Your task to perform on an android device: empty trash in google photos Image 0: 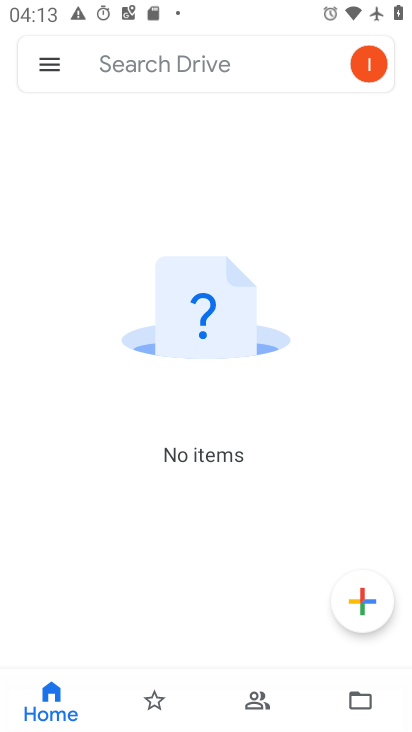
Step 0: press home button
Your task to perform on an android device: empty trash in google photos Image 1: 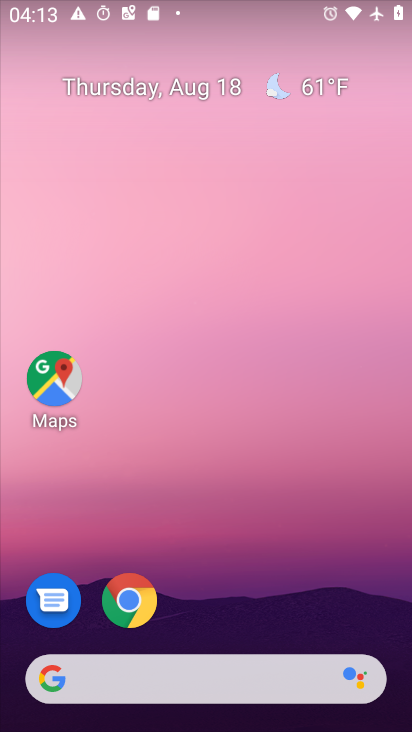
Step 1: drag from (223, 625) to (218, 47)
Your task to perform on an android device: empty trash in google photos Image 2: 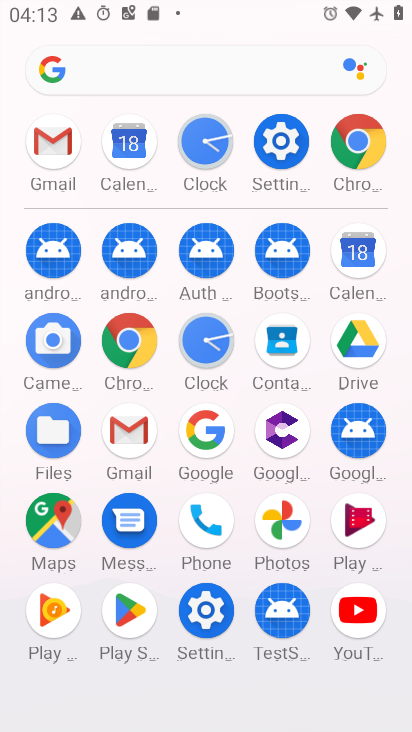
Step 2: click (282, 524)
Your task to perform on an android device: empty trash in google photos Image 3: 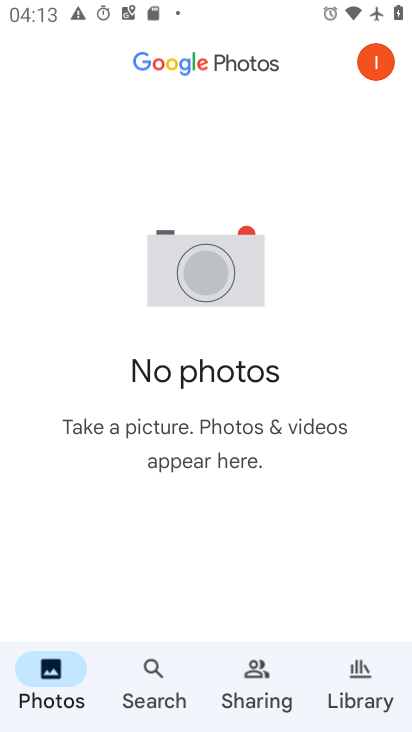
Step 3: click (365, 702)
Your task to perform on an android device: empty trash in google photos Image 4: 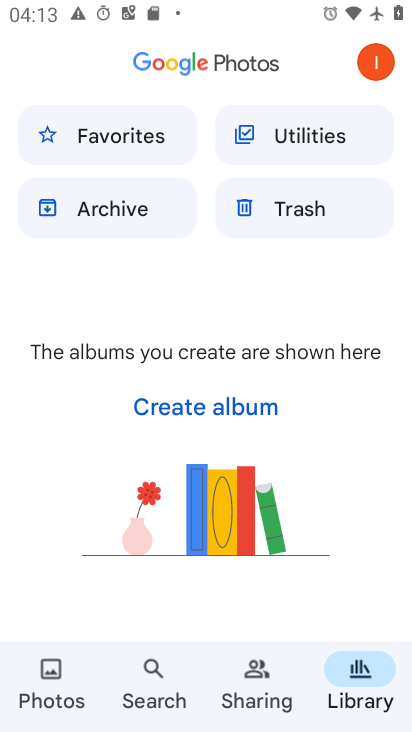
Step 4: click (290, 201)
Your task to perform on an android device: empty trash in google photos Image 5: 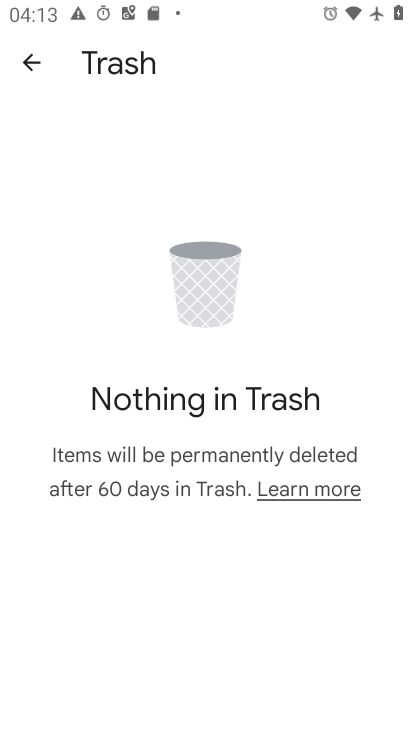
Step 5: task complete